Your task to perform on an android device: turn pop-ups on in chrome Image 0: 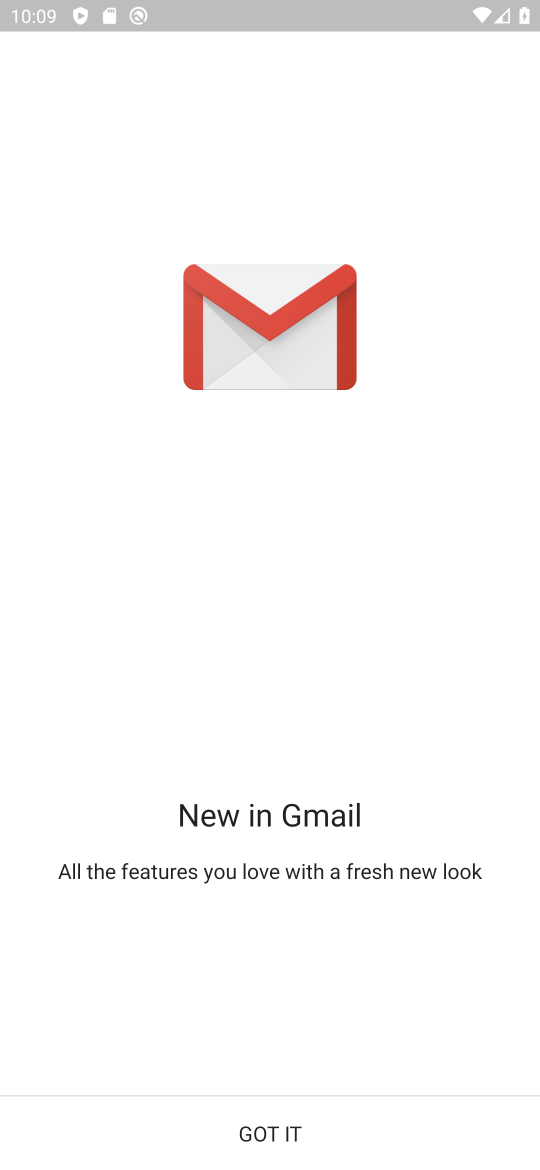
Step 0: press home button
Your task to perform on an android device: turn pop-ups on in chrome Image 1: 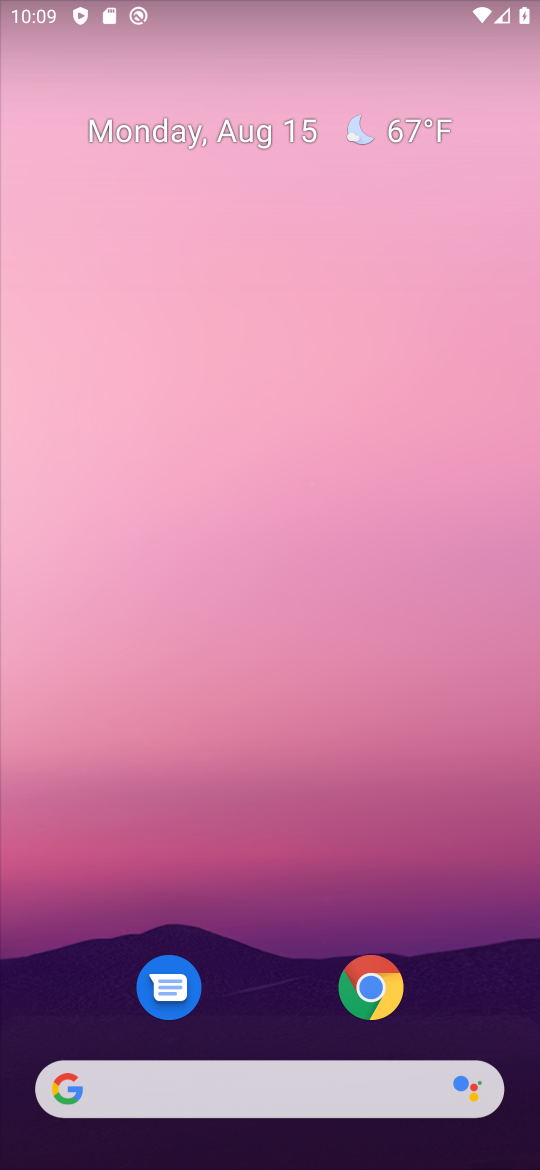
Step 1: drag from (257, 1067) to (228, 64)
Your task to perform on an android device: turn pop-ups on in chrome Image 2: 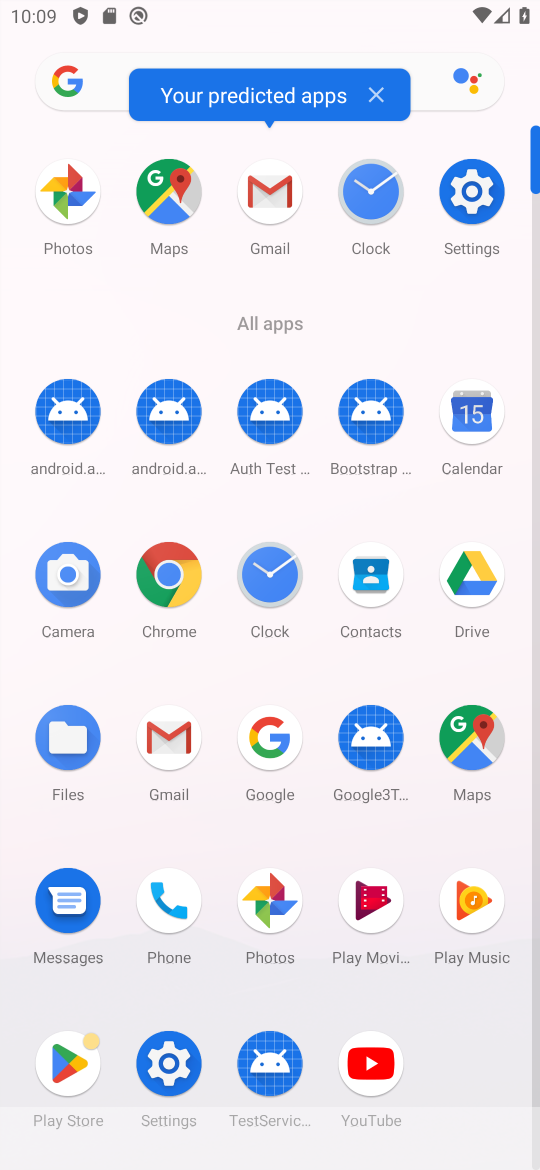
Step 2: click (182, 555)
Your task to perform on an android device: turn pop-ups on in chrome Image 3: 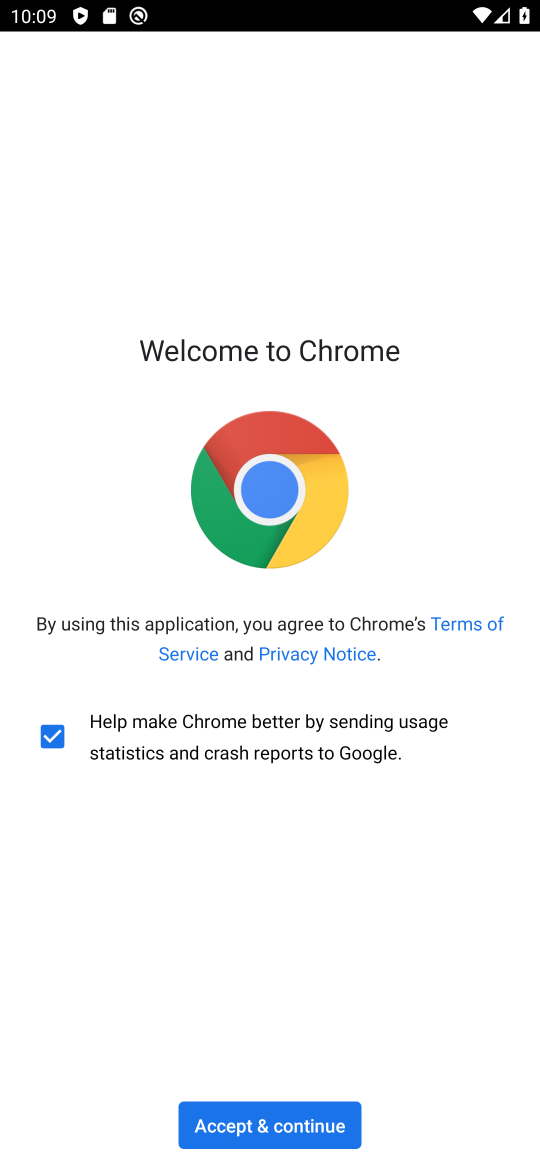
Step 3: click (286, 1115)
Your task to perform on an android device: turn pop-ups on in chrome Image 4: 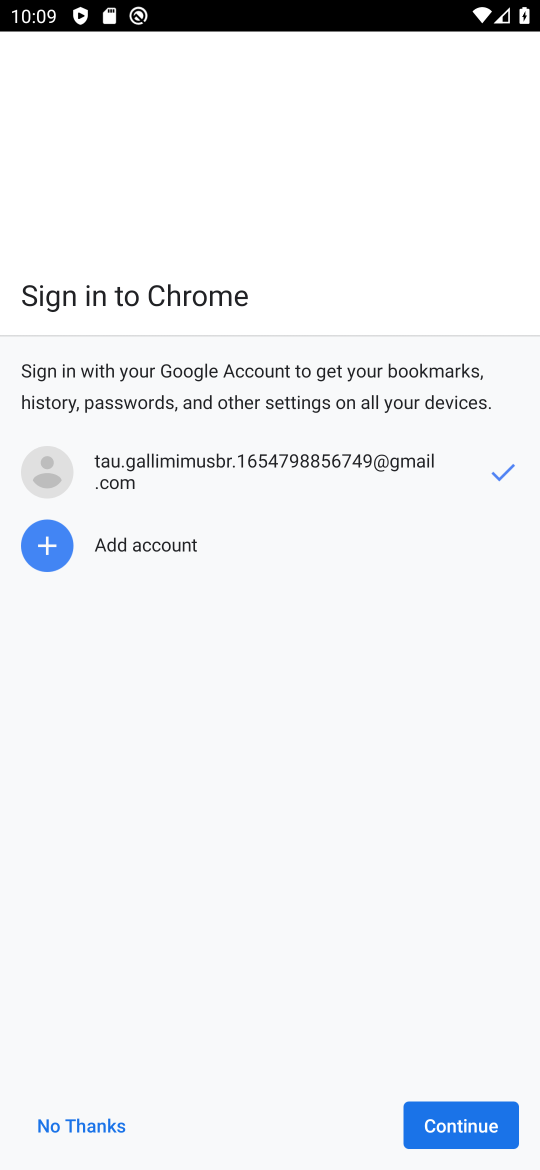
Step 4: click (429, 1117)
Your task to perform on an android device: turn pop-ups on in chrome Image 5: 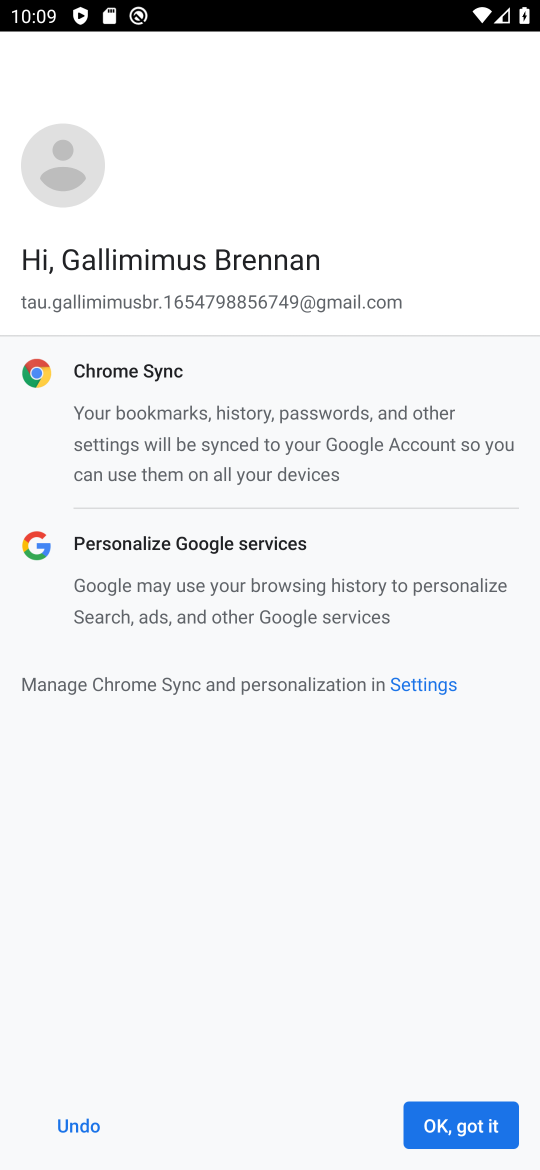
Step 5: click (429, 1116)
Your task to perform on an android device: turn pop-ups on in chrome Image 6: 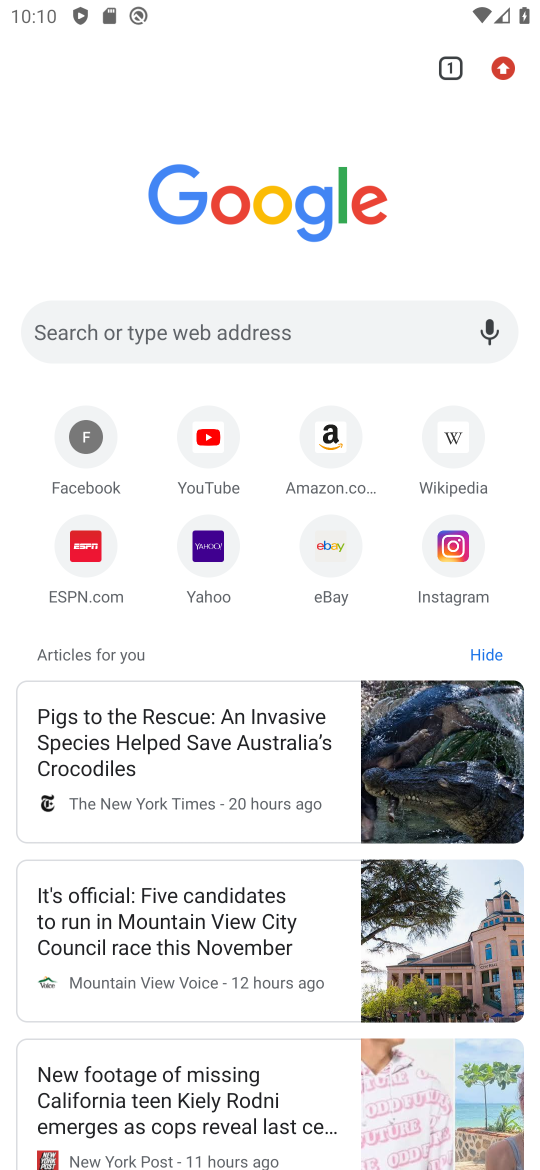
Step 6: click (511, 59)
Your task to perform on an android device: turn pop-ups on in chrome Image 7: 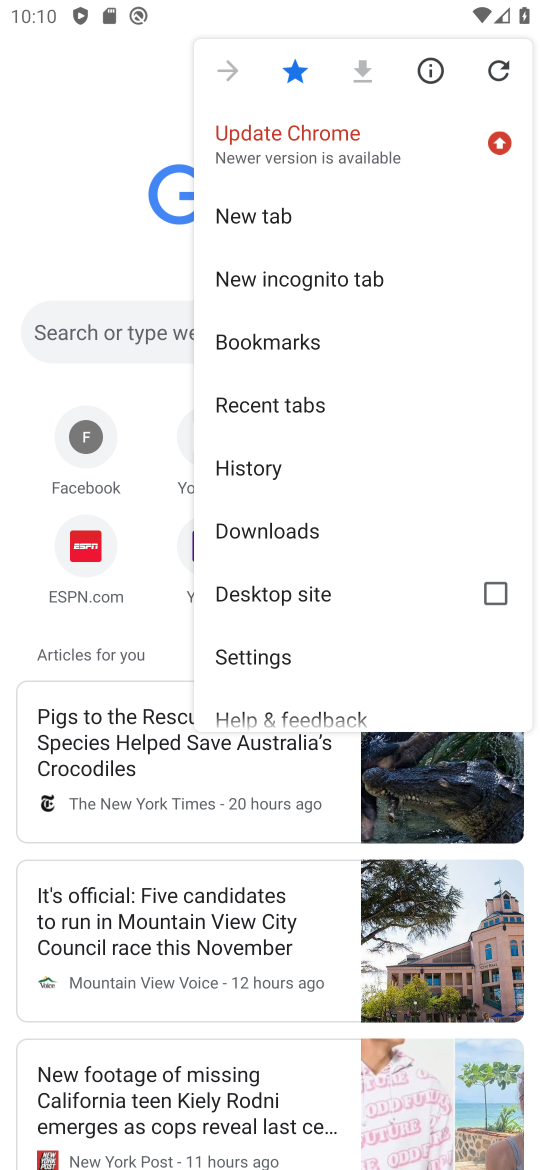
Step 7: click (291, 649)
Your task to perform on an android device: turn pop-ups on in chrome Image 8: 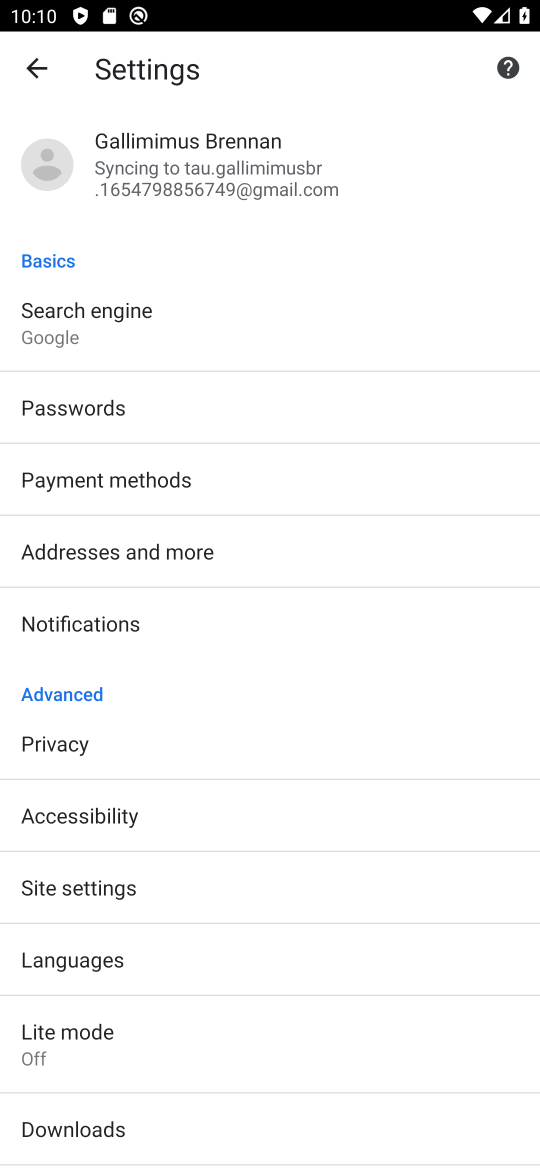
Step 8: click (144, 955)
Your task to perform on an android device: turn pop-ups on in chrome Image 9: 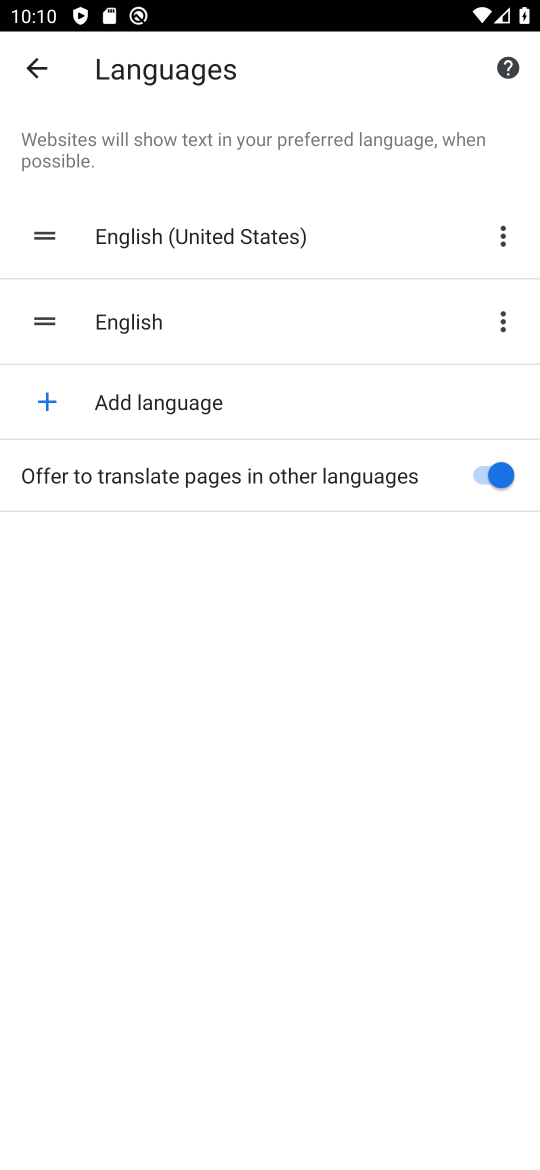
Step 9: click (33, 69)
Your task to perform on an android device: turn pop-ups on in chrome Image 10: 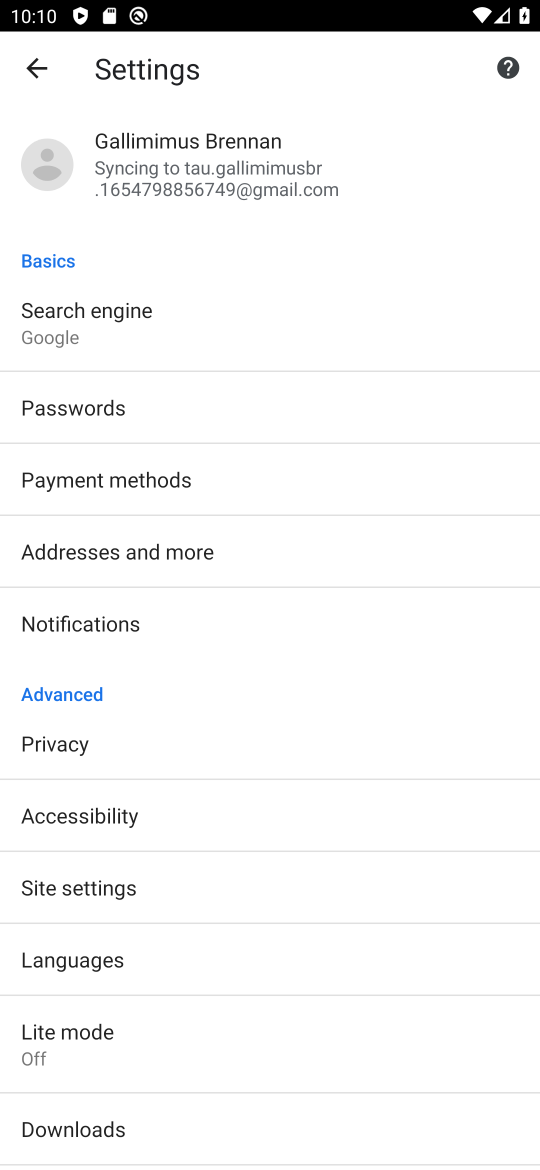
Step 10: click (65, 877)
Your task to perform on an android device: turn pop-ups on in chrome Image 11: 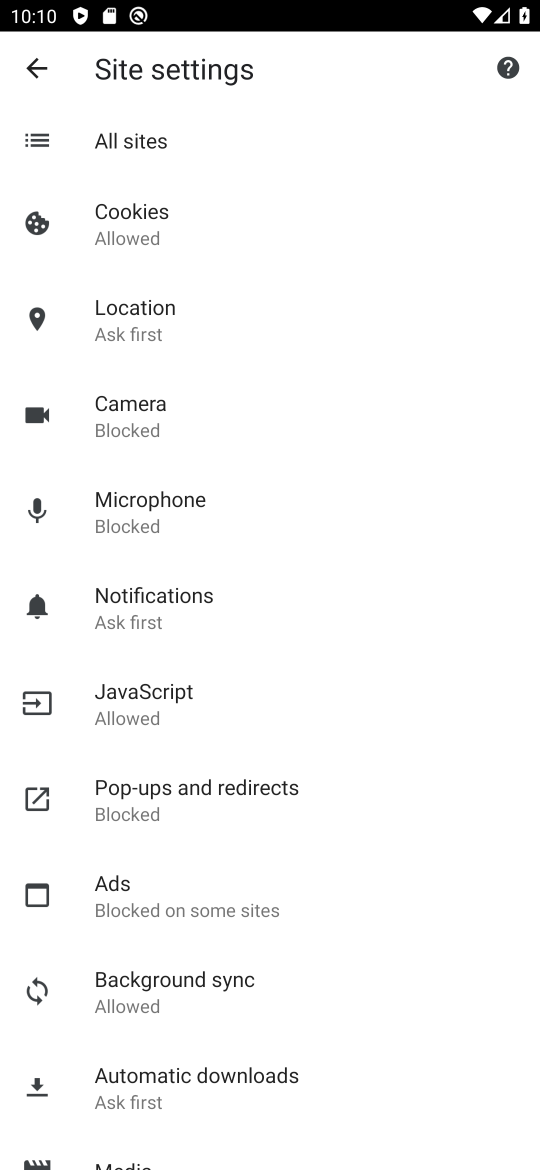
Step 11: click (113, 812)
Your task to perform on an android device: turn pop-ups on in chrome Image 12: 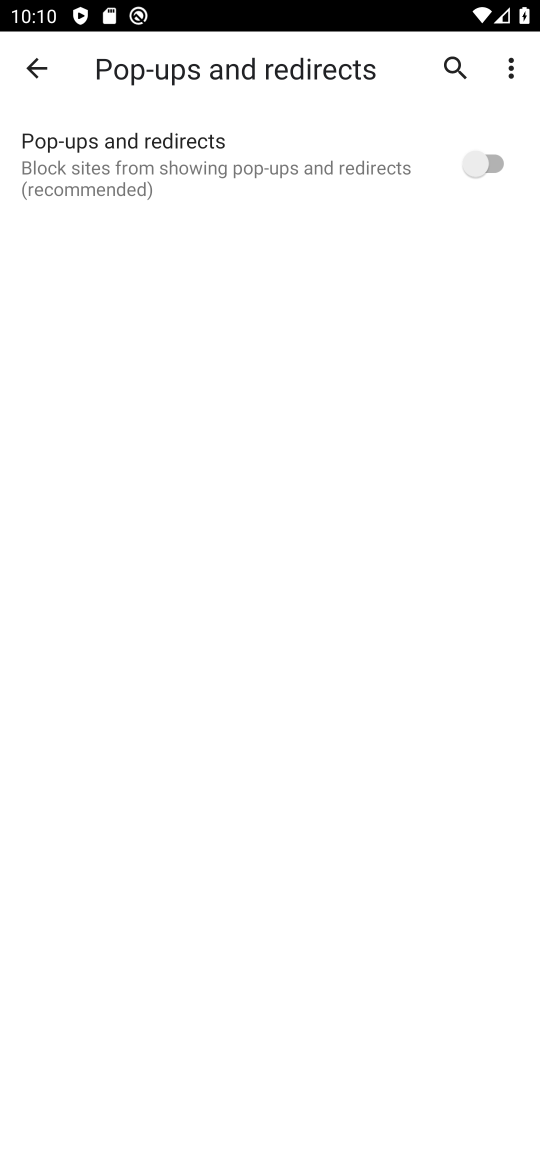
Step 12: click (482, 161)
Your task to perform on an android device: turn pop-ups on in chrome Image 13: 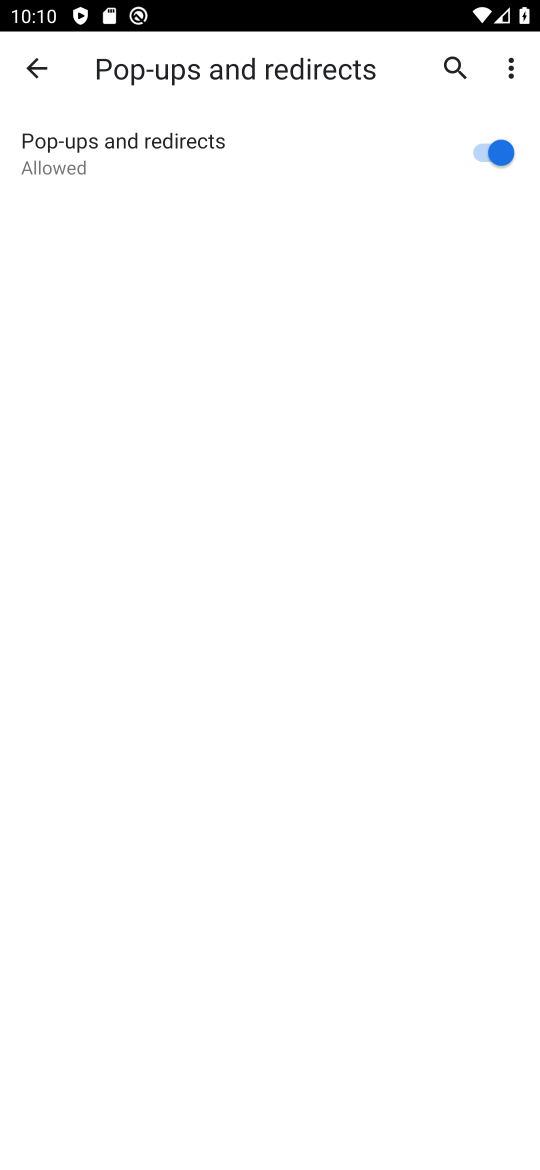
Step 13: task complete